Your task to perform on an android device: Open Google Chrome and open the bookmarks view Image 0: 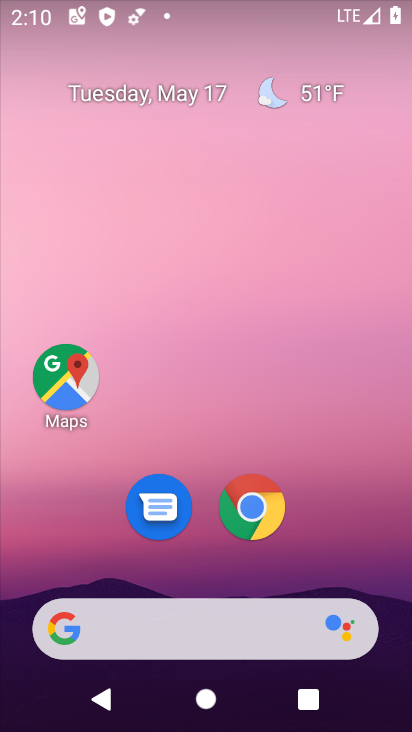
Step 0: click (257, 502)
Your task to perform on an android device: Open Google Chrome and open the bookmarks view Image 1: 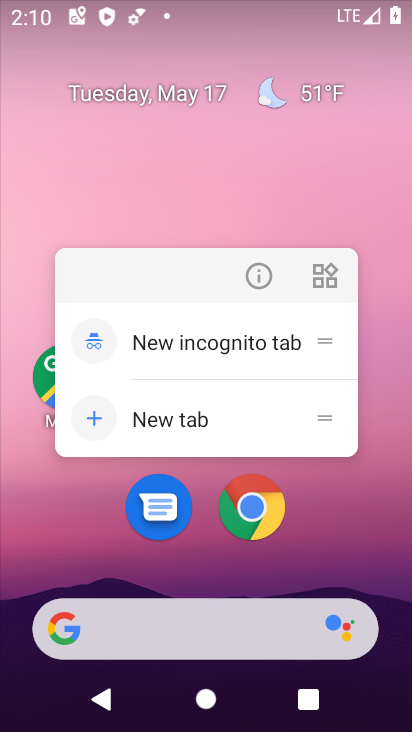
Step 1: click (265, 498)
Your task to perform on an android device: Open Google Chrome and open the bookmarks view Image 2: 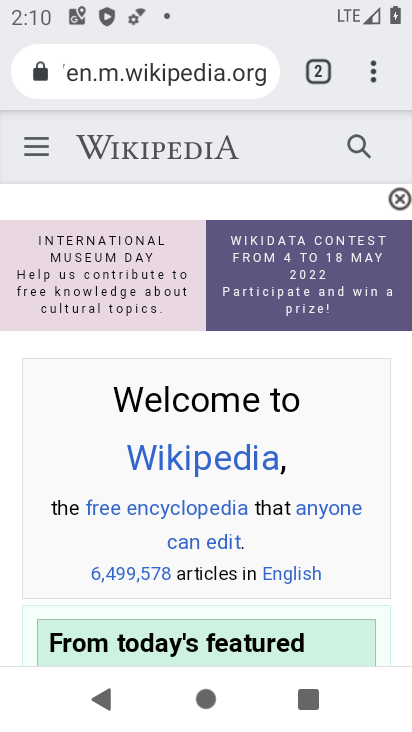
Step 2: click (376, 74)
Your task to perform on an android device: Open Google Chrome and open the bookmarks view Image 3: 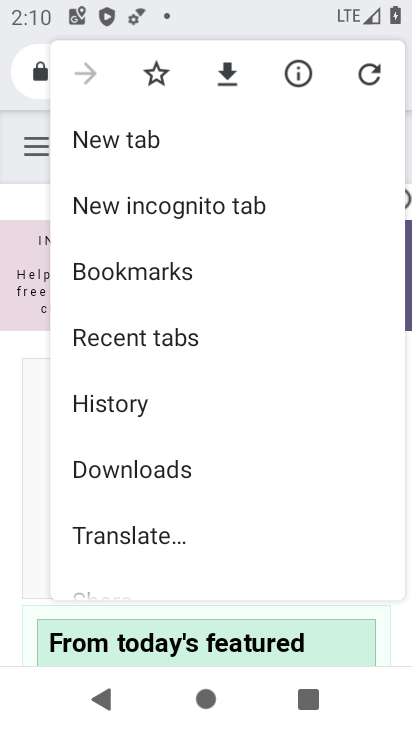
Step 3: click (127, 271)
Your task to perform on an android device: Open Google Chrome and open the bookmarks view Image 4: 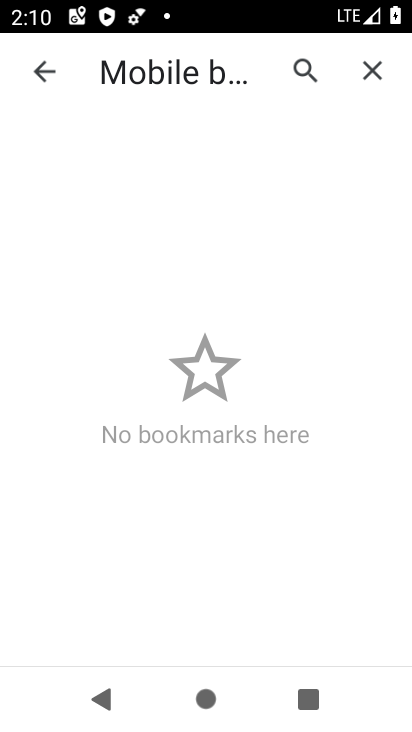
Step 4: task complete